Your task to perform on an android device: open app "Pluto TV - Live TV and Movies" (install if not already installed) and enter user name: "wools@yahoo.com" and password: "misplacing" Image 0: 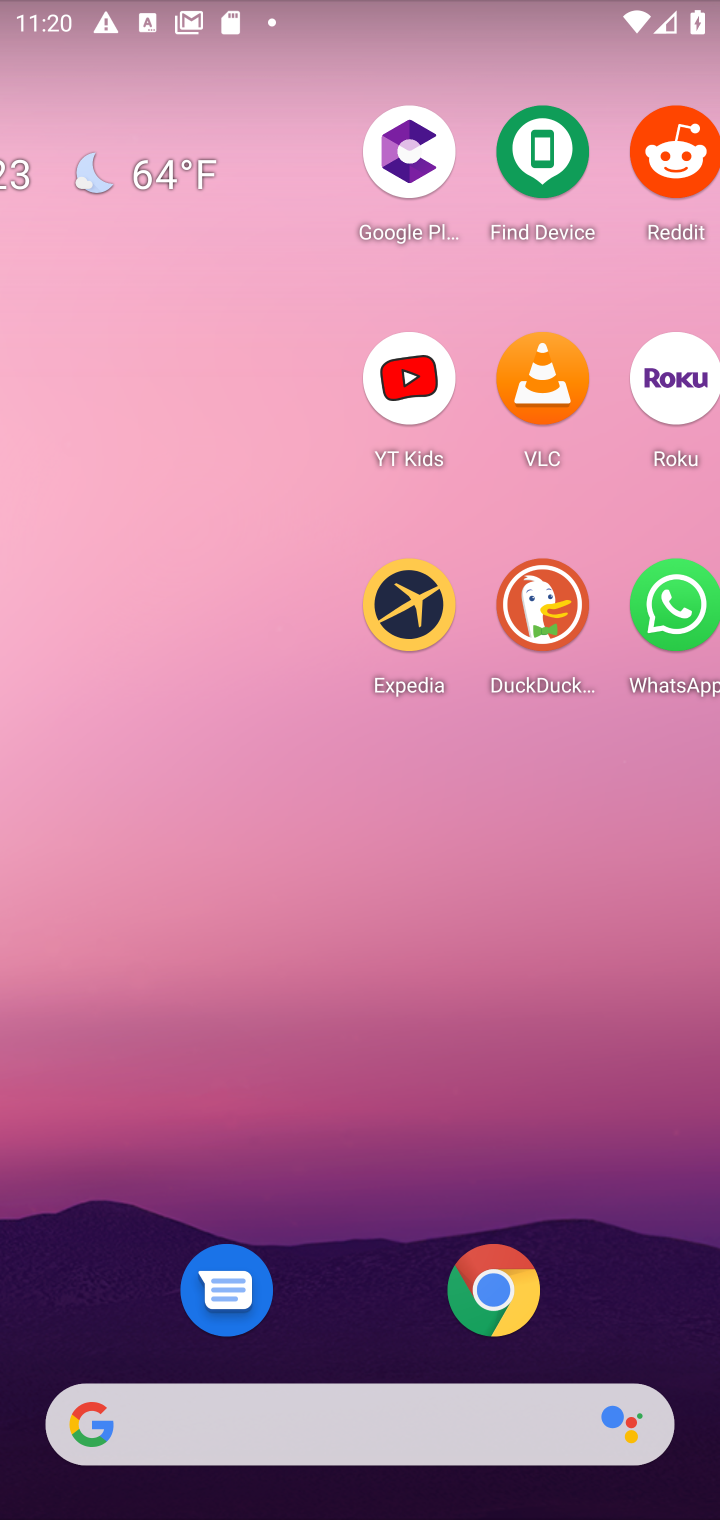
Step 0: click (561, 82)
Your task to perform on an android device: open app "Pluto TV - Live TV and Movies" (install if not already installed) and enter user name: "wools@yahoo.com" and password: "misplacing" Image 1: 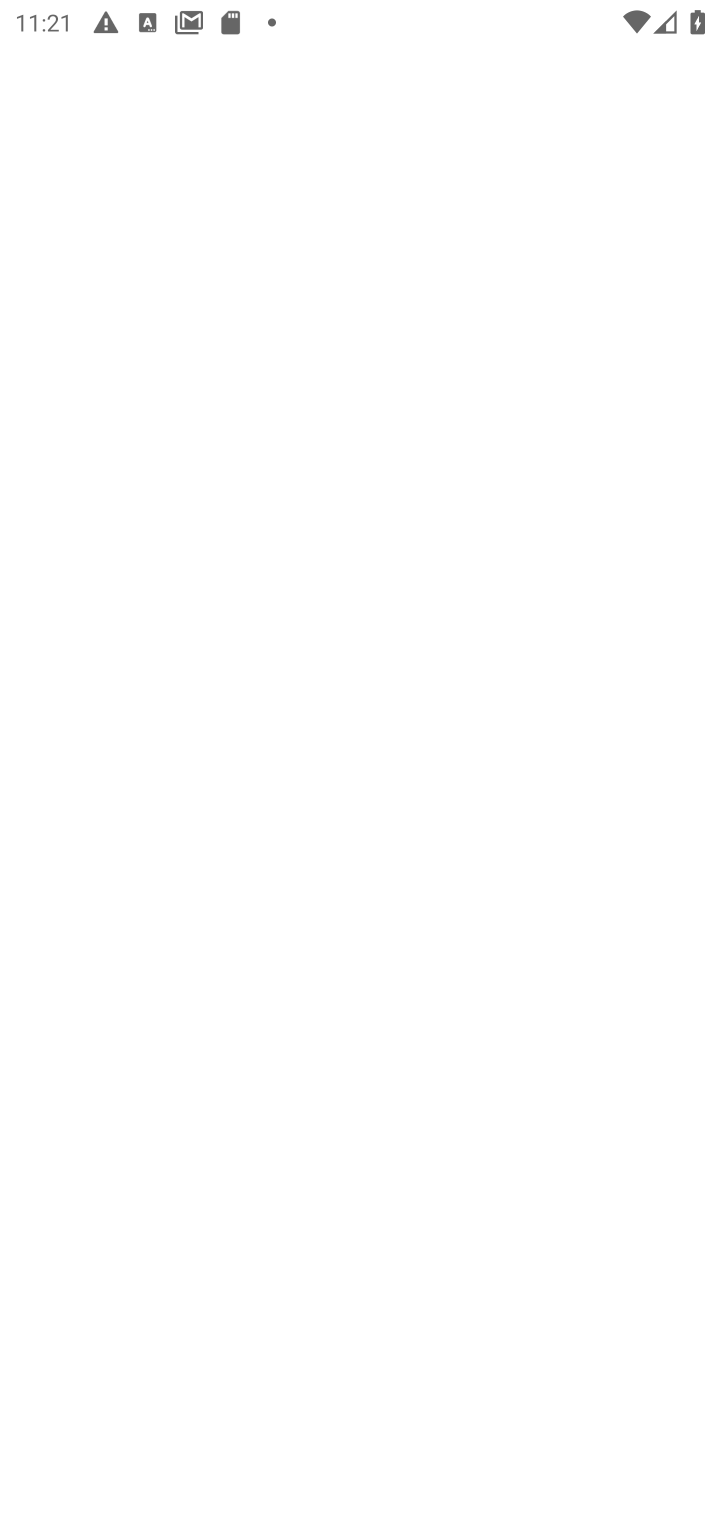
Step 1: press home button
Your task to perform on an android device: open app "Pluto TV - Live TV and Movies" (install if not already installed) and enter user name: "wools@yahoo.com" and password: "misplacing" Image 2: 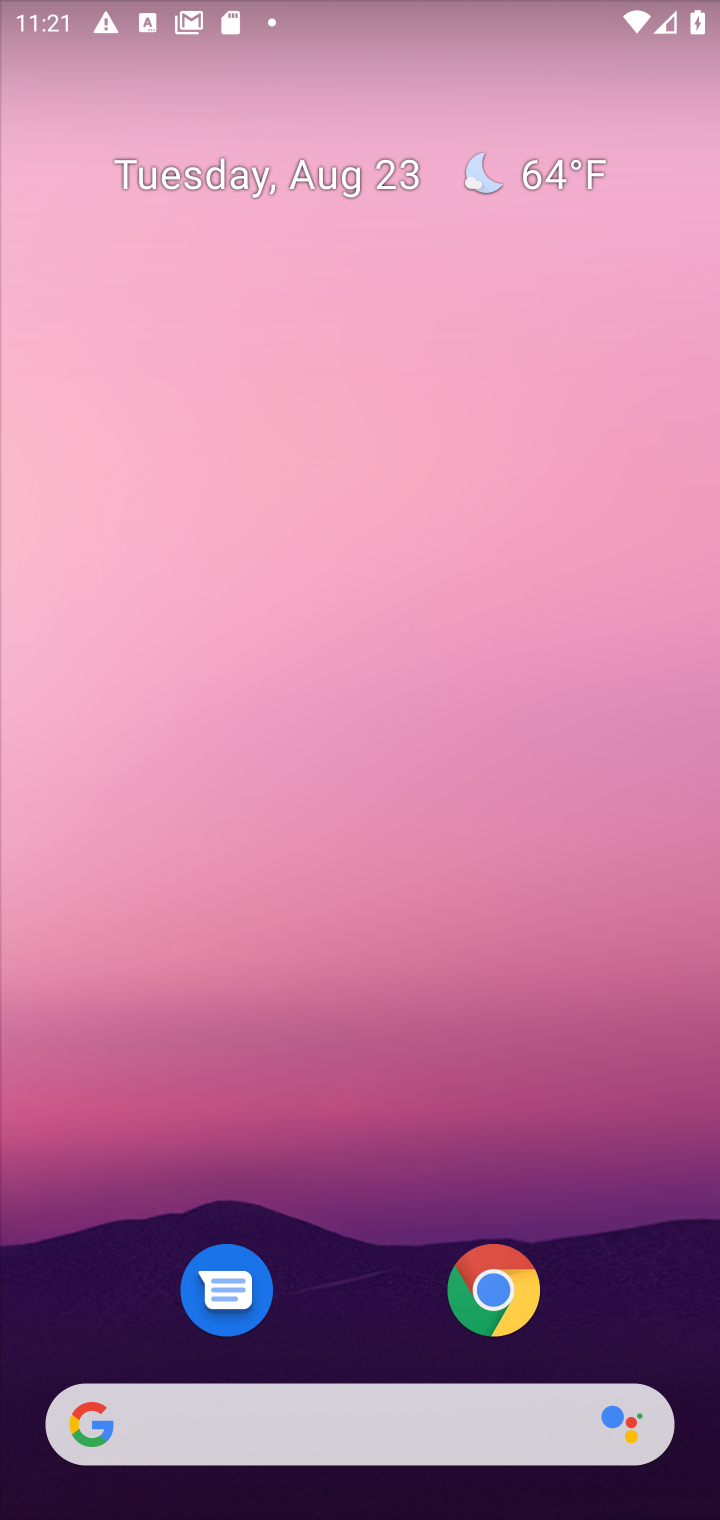
Step 2: drag from (346, 1361) to (337, 91)
Your task to perform on an android device: open app "Pluto TV - Live TV and Movies" (install if not already installed) and enter user name: "wools@yahoo.com" and password: "misplacing" Image 3: 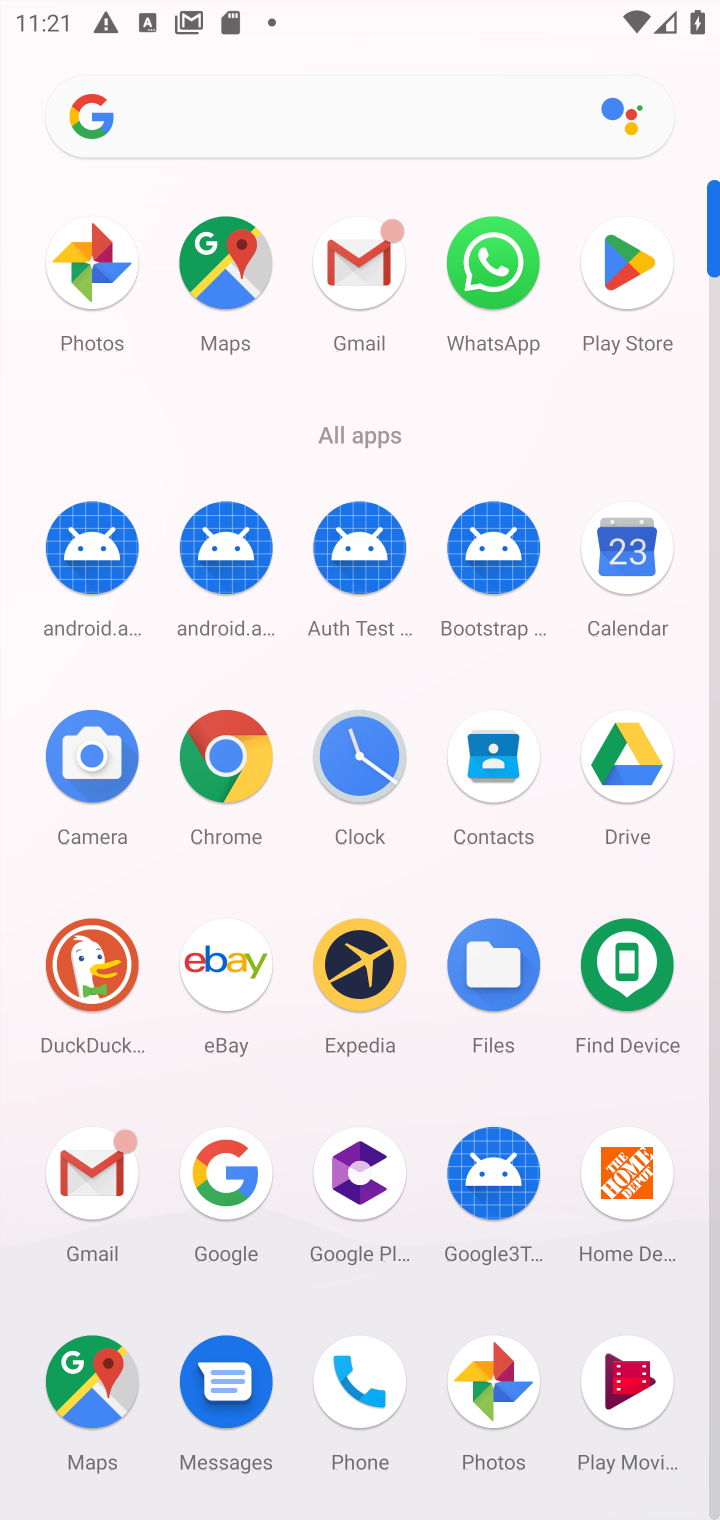
Step 3: click (633, 246)
Your task to perform on an android device: open app "Pluto TV - Live TV and Movies" (install if not already installed) and enter user name: "wools@yahoo.com" and password: "misplacing" Image 4: 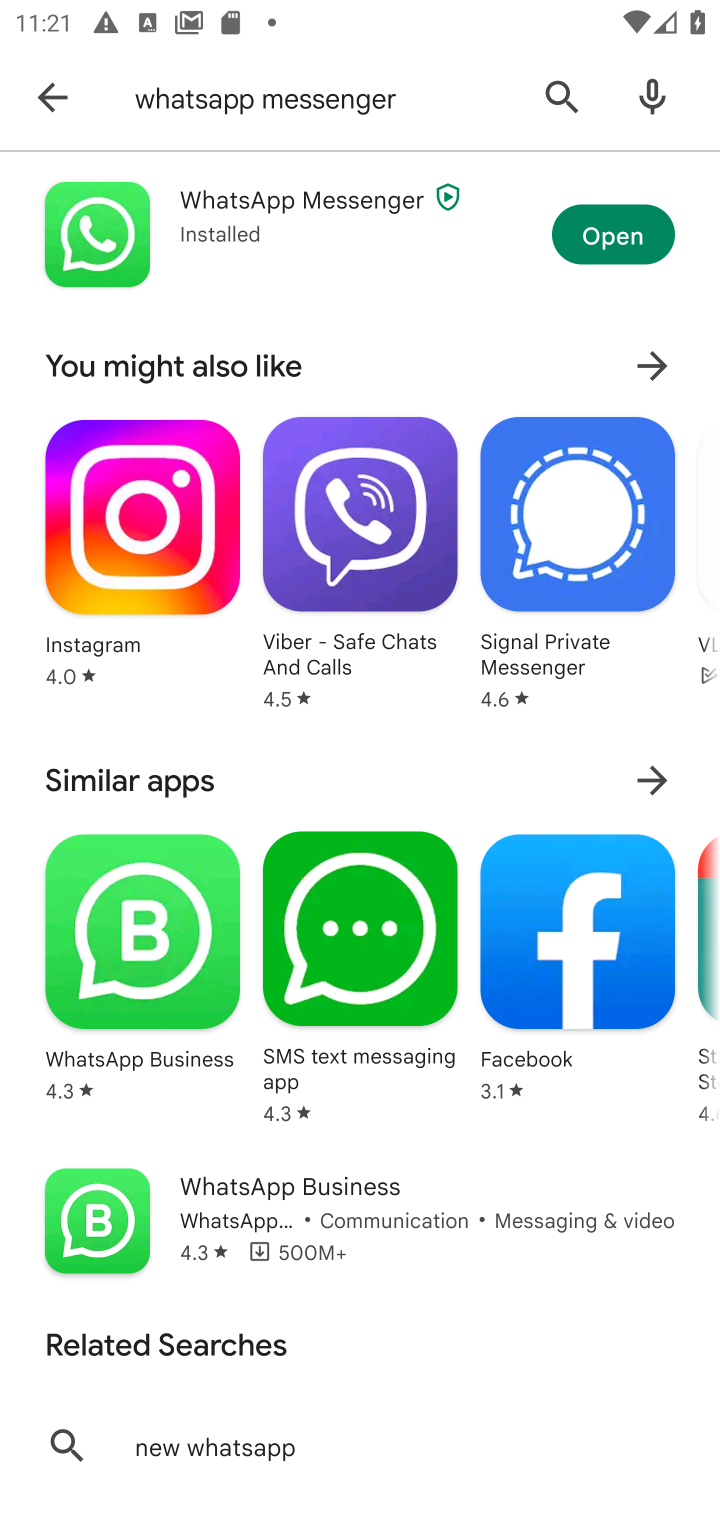
Step 4: click (560, 94)
Your task to perform on an android device: open app "Pluto TV - Live TV and Movies" (install if not already installed) and enter user name: "wools@yahoo.com" and password: "misplacing" Image 5: 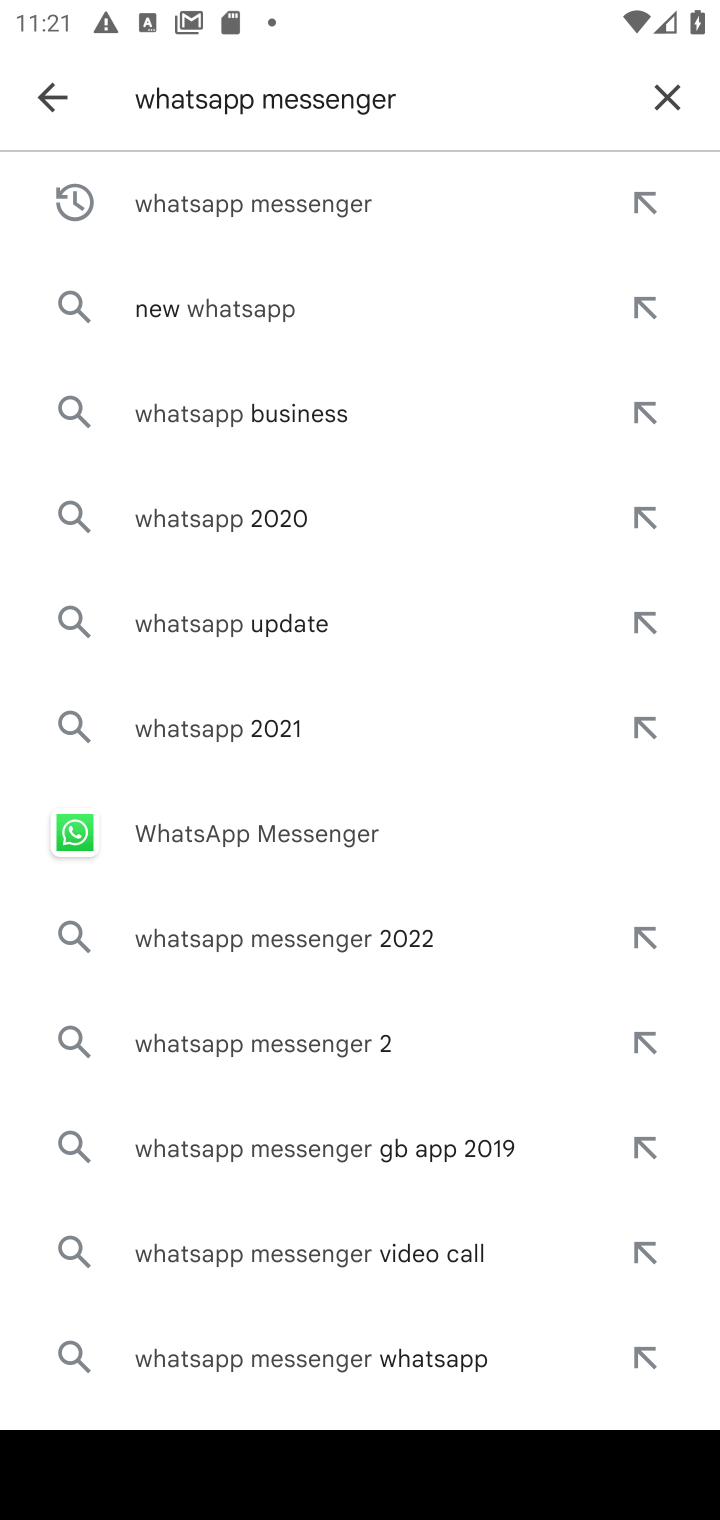
Step 5: click (659, 93)
Your task to perform on an android device: open app "Pluto TV - Live TV and Movies" (install if not already installed) and enter user name: "wools@yahoo.com" and password: "misplacing" Image 6: 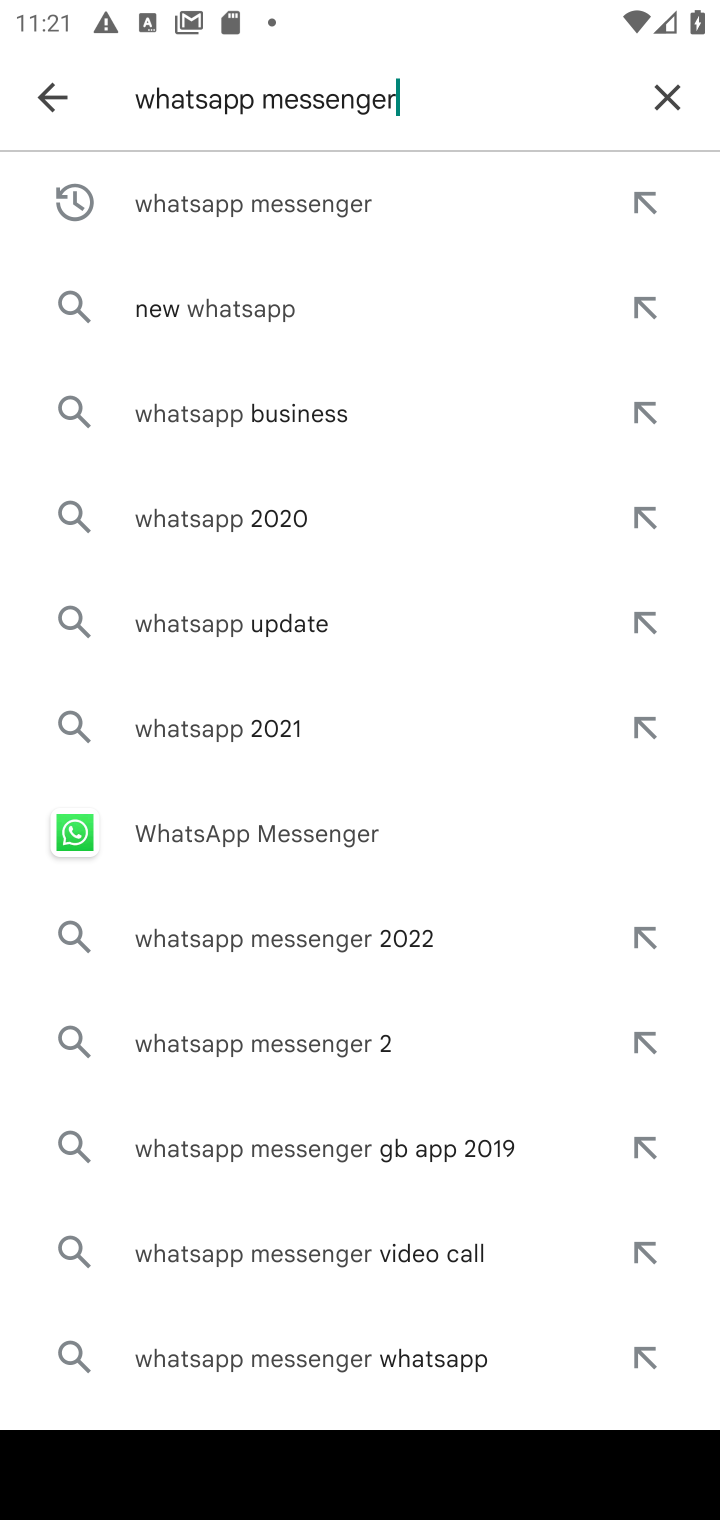
Step 6: click (665, 88)
Your task to perform on an android device: open app "Pluto TV - Live TV and Movies" (install if not already installed) and enter user name: "wools@yahoo.com" and password: "misplacing" Image 7: 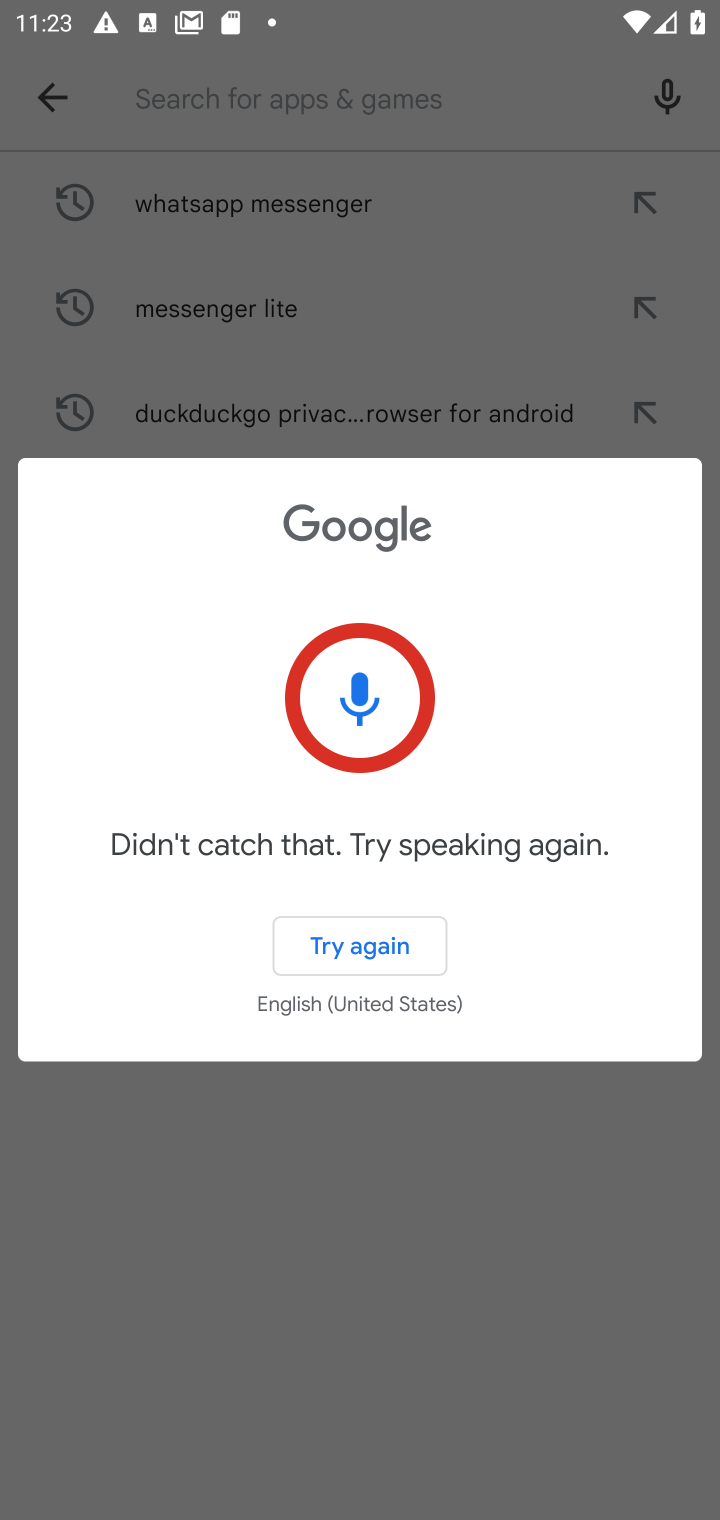
Step 7: click (524, 1266)
Your task to perform on an android device: open app "Pluto TV - Live TV and Movies" (install if not already installed) and enter user name: "wools@yahoo.com" and password: "misplacing" Image 8: 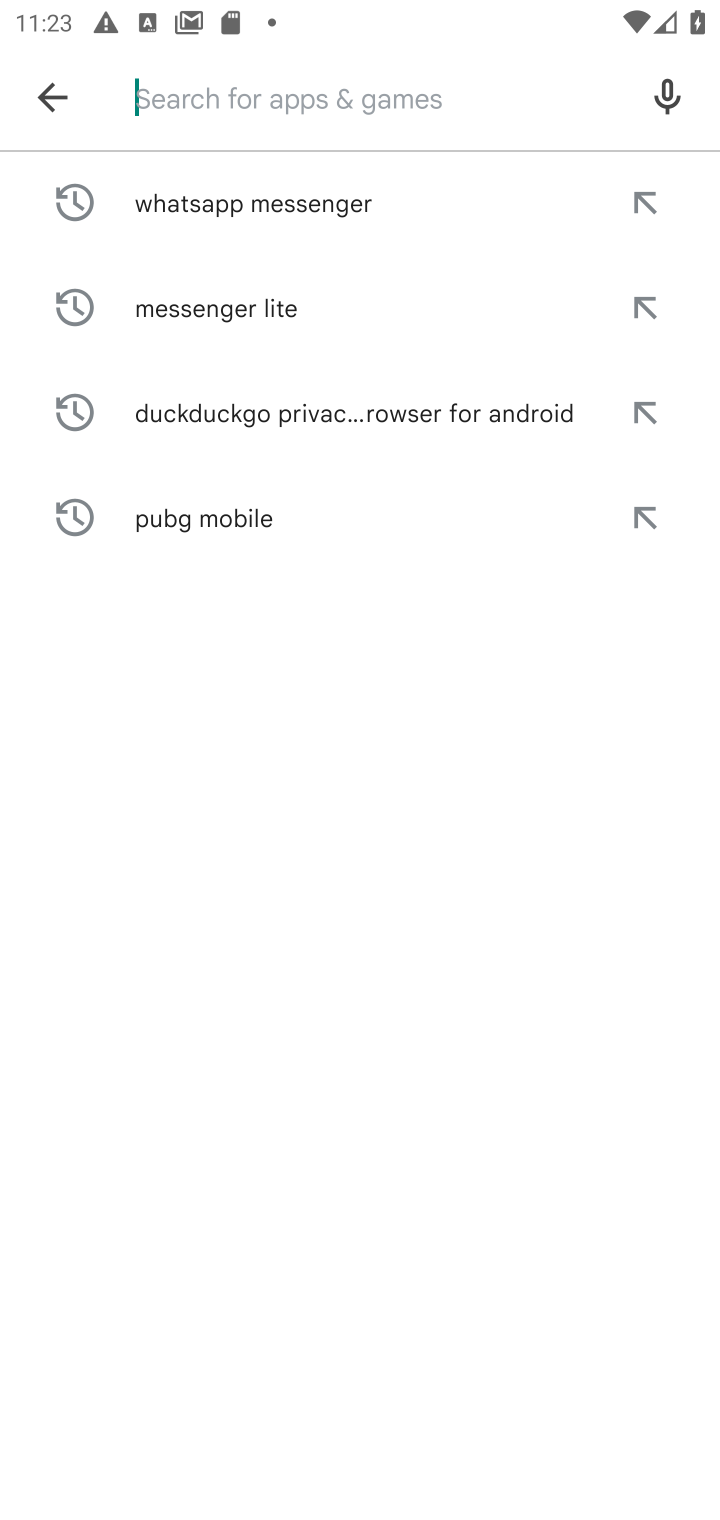
Step 8: type "Pluto TV - Live TV and Movies"
Your task to perform on an android device: open app "Pluto TV - Live TV and Movies" (install if not already installed) and enter user name: "wools@yahoo.com" and password: "misplacing" Image 9: 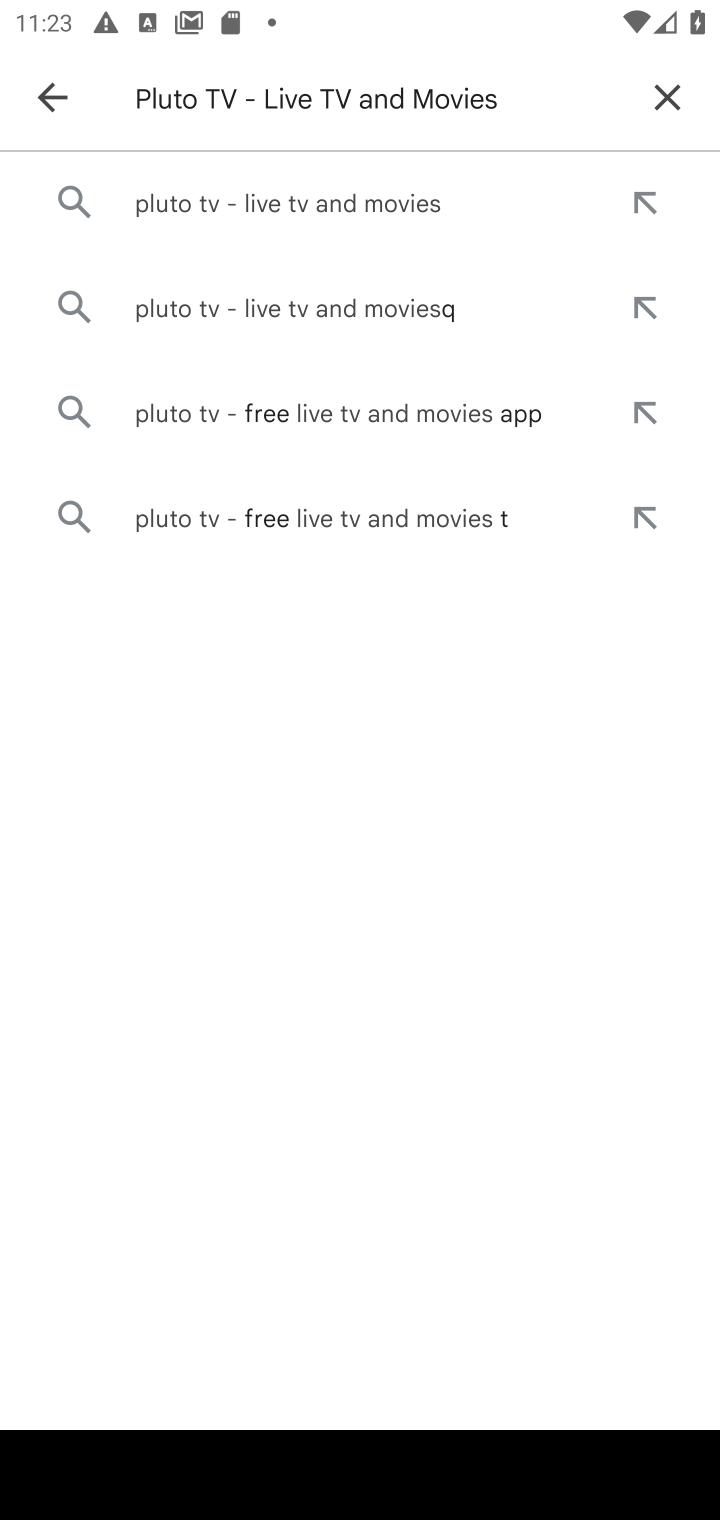
Step 9: click (183, 209)
Your task to perform on an android device: open app "Pluto TV - Live TV and Movies" (install if not already installed) and enter user name: "wools@yahoo.com" and password: "misplacing" Image 10: 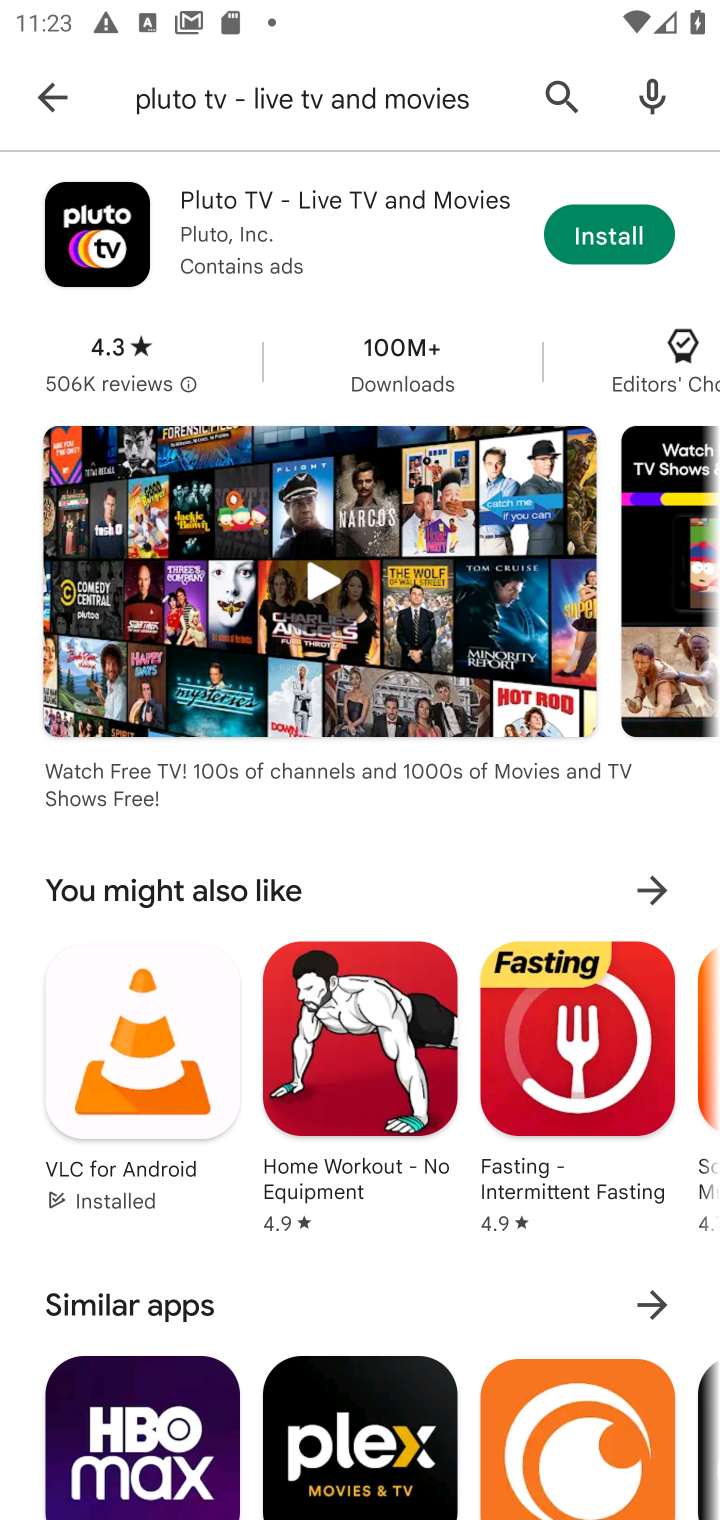
Step 10: click (607, 236)
Your task to perform on an android device: open app "Pluto TV - Live TV and Movies" (install if not already installed) and enter user name: "wools@yahoo.com" and password: "misplacing" Image 11: 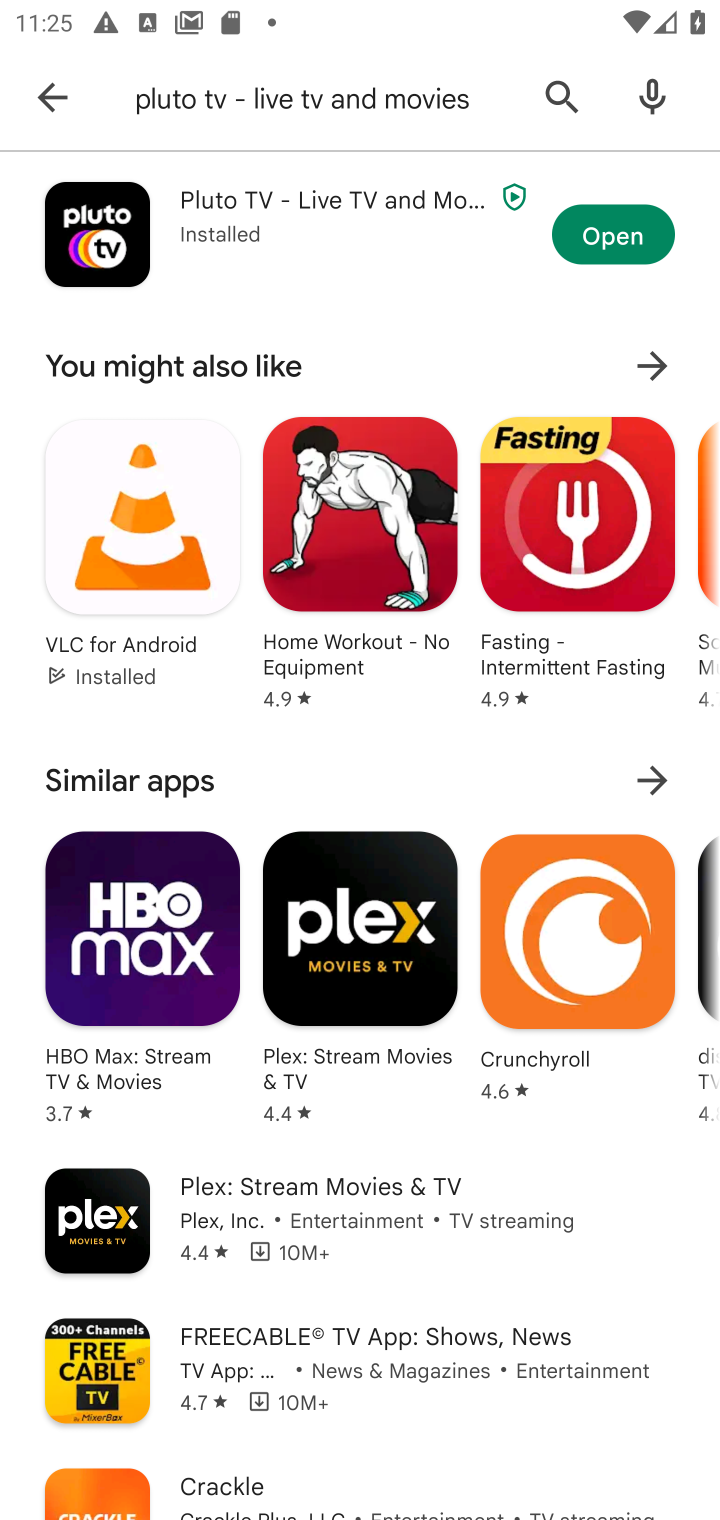
Step 11: click (595, 245)
Your task to perform on an android device: open app "Pluto TV - Live TV and Movies" (install if not already installed) and enter user name: "wools@yahoo.com" and password: "misplacing" Image 12: 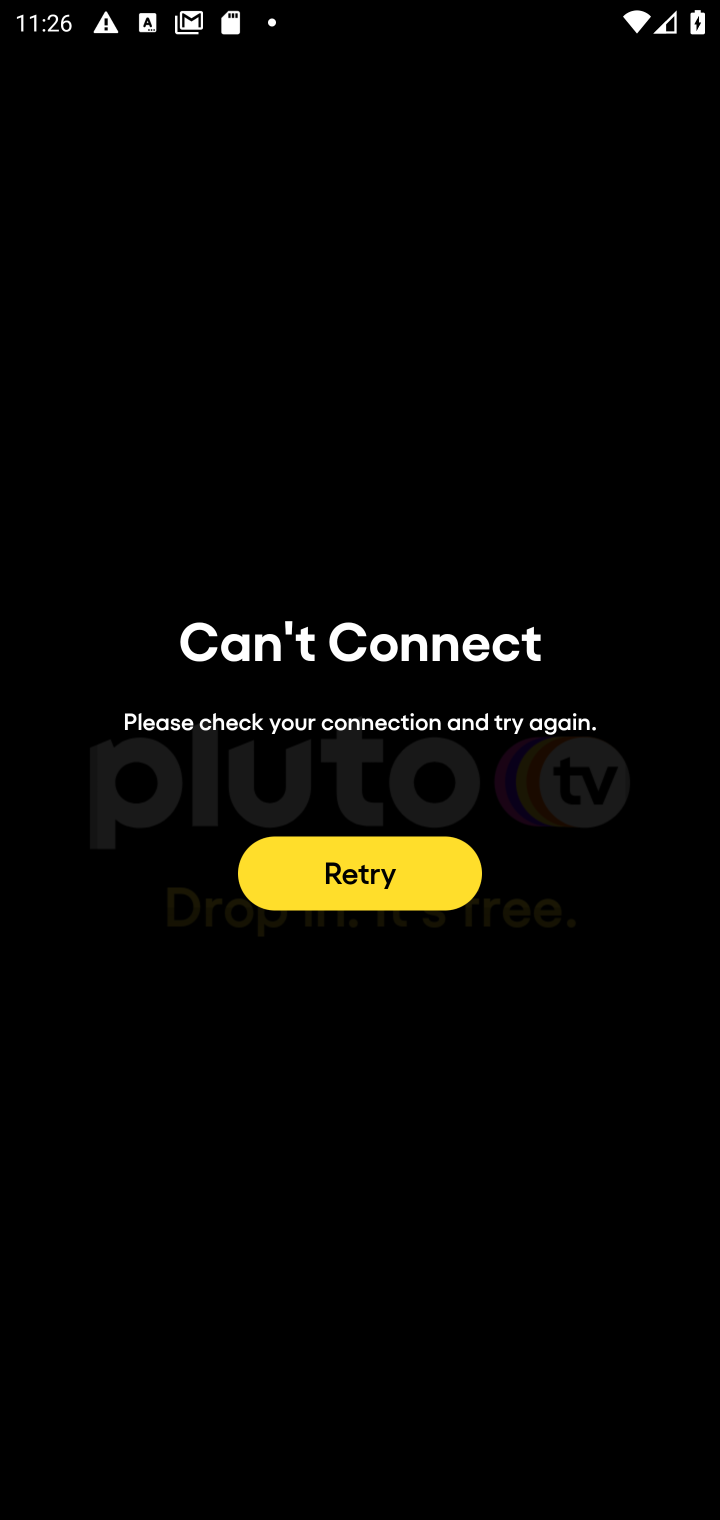
Step 12: task complete